Your task to perform on an android device: toggle location history Image 0: 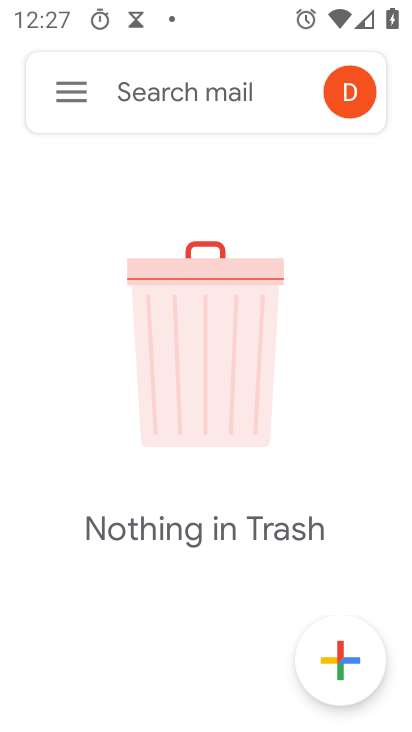
Step 0: press home button
Your task to perform on an android device: toggle location history Image 1: 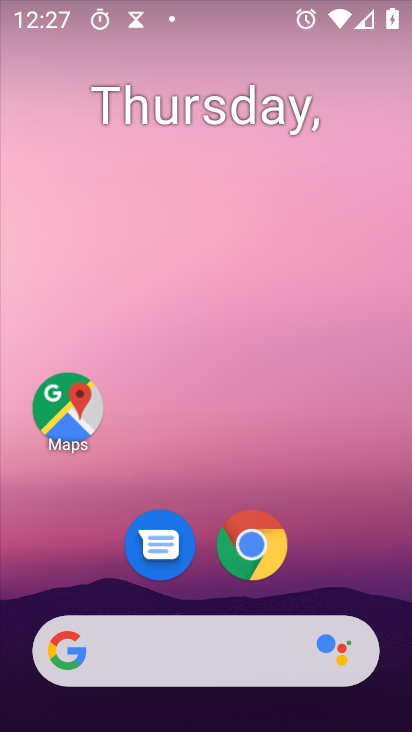
Step 1: drag from (174, 663) to (324, 132)
Your task to perform on an android device: toggle location history Image 2: 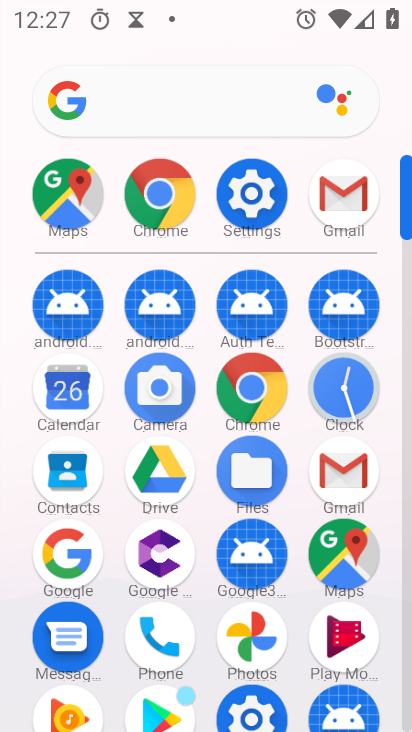
Step 2: click (251, 203)
Your task to perform on an android device: toggle location history Image 3: 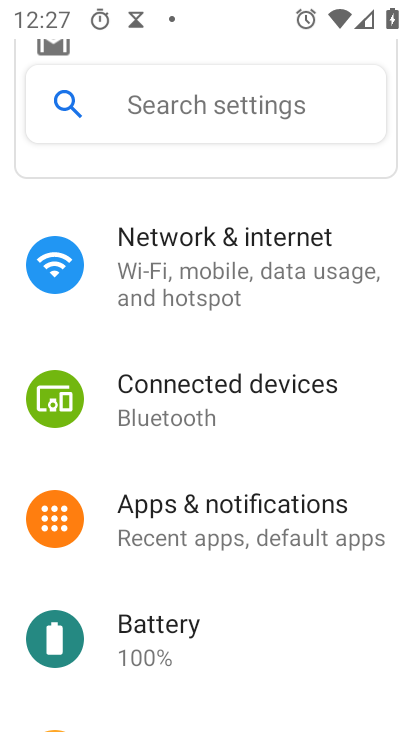
Step 3: drag from (225, 626) to (270, 95)
Your task to perform on an android device: toggle location history Image 4: 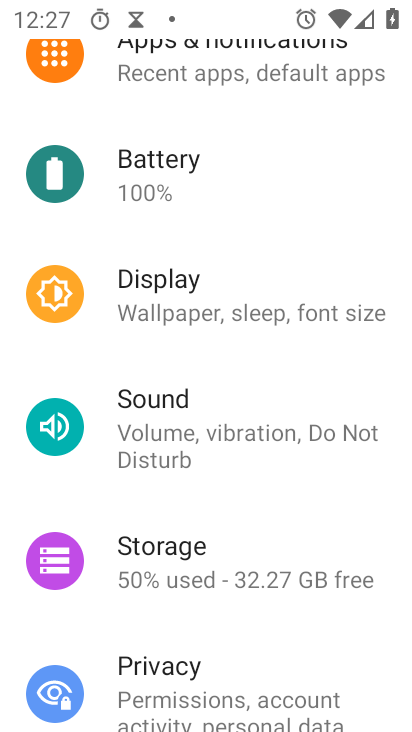
Step 4: drag from (209, 608) to (270, 175)
Your task to perform on an android device: toggle location history Image 5: 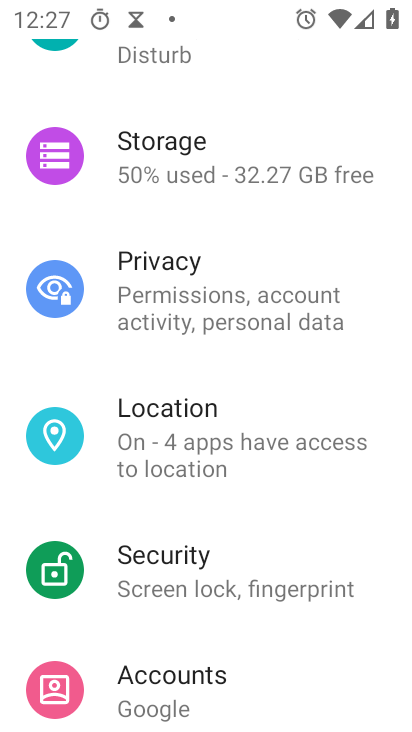
Step 5: click (196, 423)
Your task to perform on an android device: toggle location history Image 6: 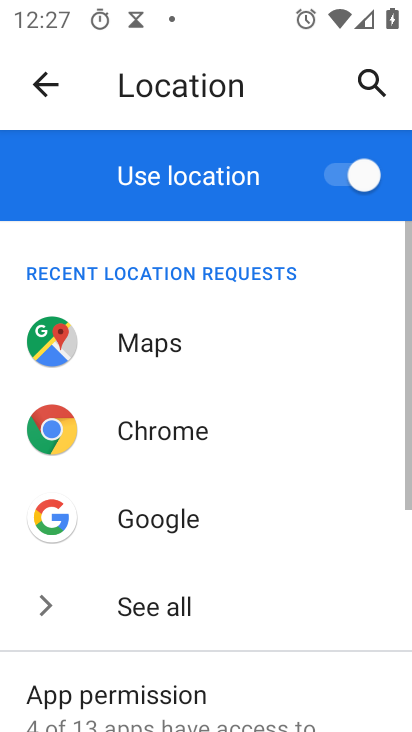
Step 6: drag from (187, 669) to (264, 58)
Your task to perform on an android device: toggle location history Image 7: 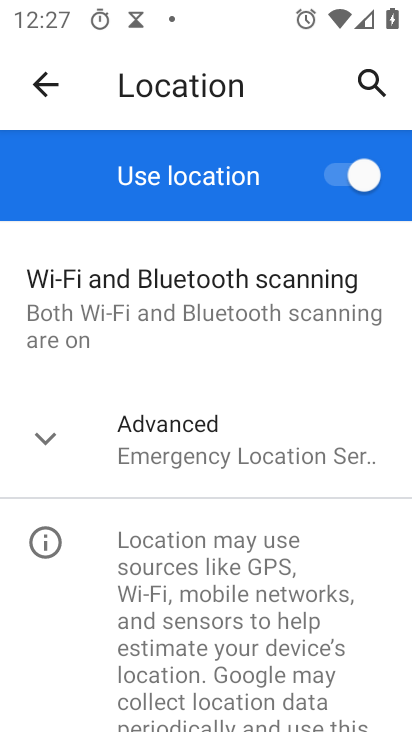
Step 7: click (182, 442)
Your task to perform on an android device: toggle location history Image 8: 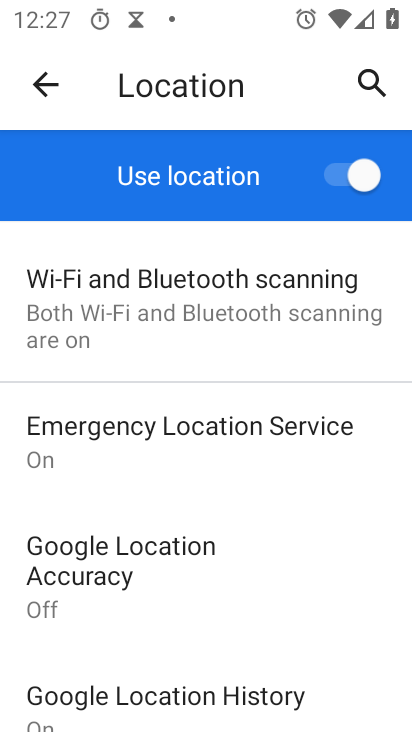
Step 8: click (112, 576)
Your task to perform on an android device: toggle location history Image 9: 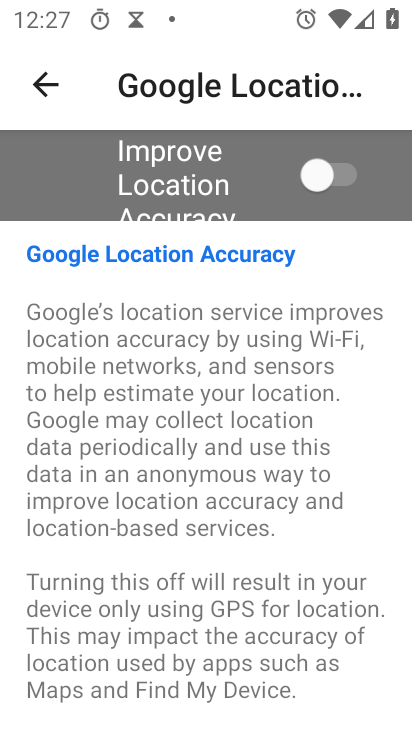
Step 9: click (44, 82)
Your task to perform on an android device: toggle location history Image 10: 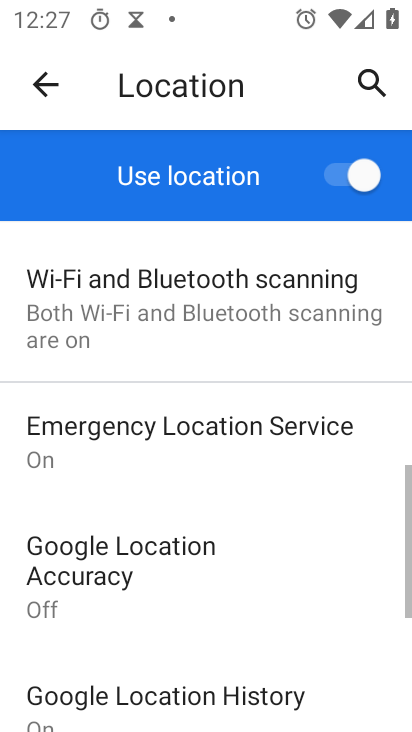
Step 10: drag from (220, 604) to (276, 266)
Your task to perform on an android device: toggle location history Image 11: 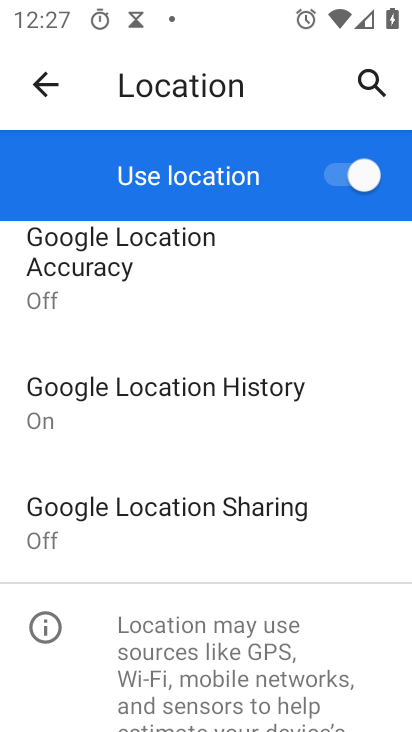
Step 11: click (148, 396)
Your task to perform on an android device: toggle location history Image 12: 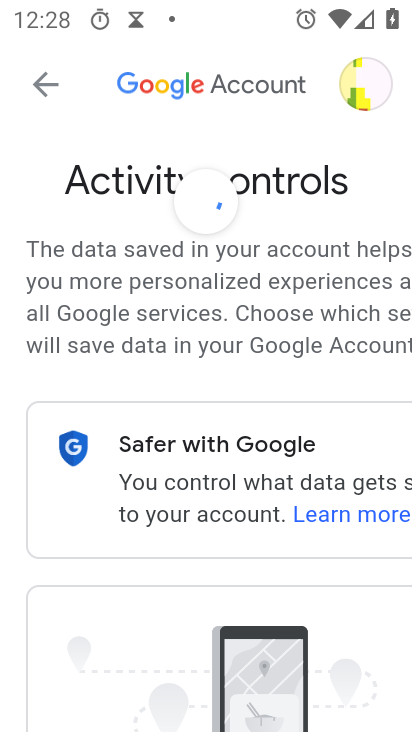
Step 12: drag from (196, 663) to (344, 68)
Your task to perform on an android device: toggle location history Image 13: 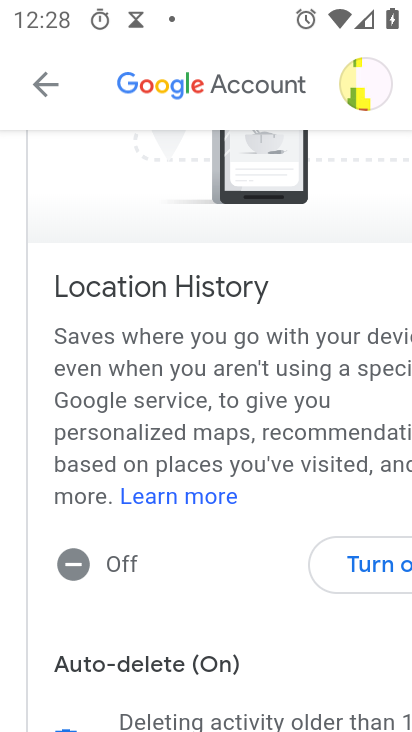
Step 13: click (393, 566)
Your task to perform on an android device: toggle location history Image 14: 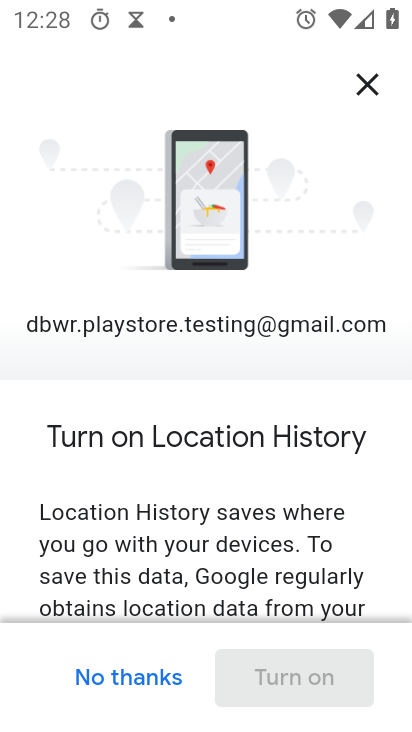
Step 14: drag from (276, 594) to (344, 108)
Your task to perform on an android device: toggle location history Image 15: 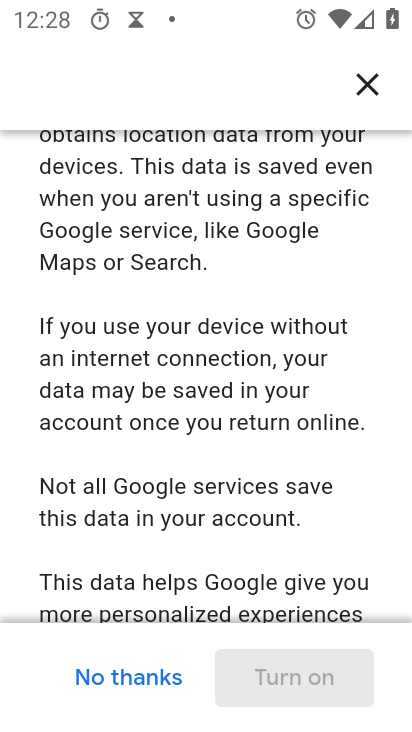
Step 15: drag from (248, 563) to (344, 82)
Your task to perform on an android device: toggle location history Image 16: 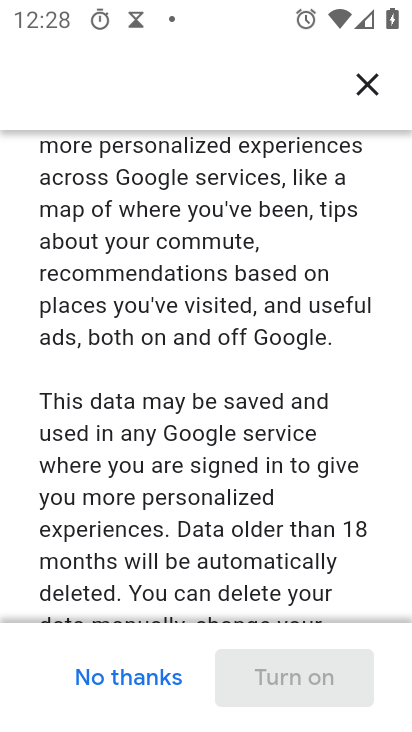
Step 16: drag from (291, 557) to (375, 53)
Your task to perform on an android device: toggle location history Image 17: 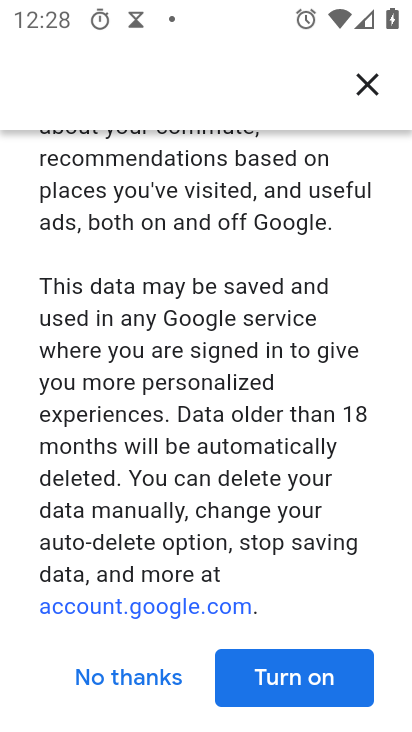
Step 17: click (297, 682)
Your task to perform on an android device: toggle location history Image 18: 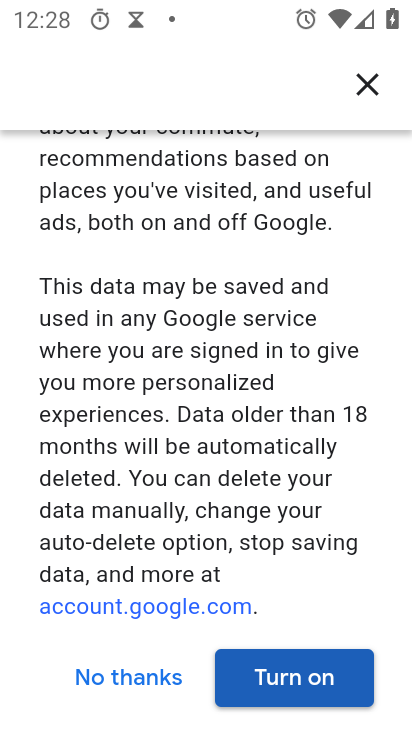
Step 18: click (302, 681)
Your task to perform on an android device: toggle location history Image 19: 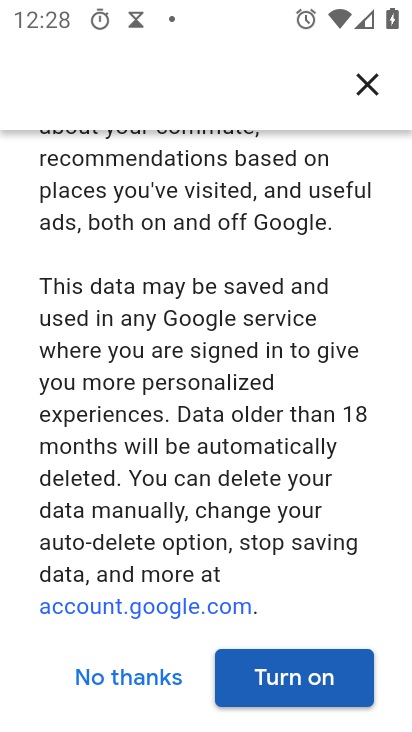
Step 19: click (303, 679)
Your task to perform on an android device: toggle location history Image 20: 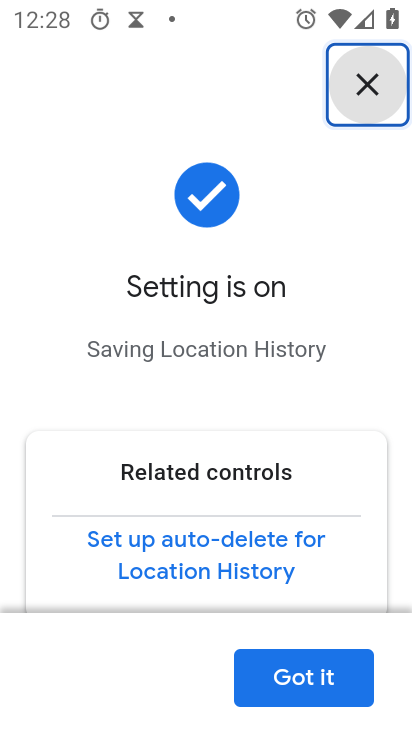
Step 20: click (361, 84)
Your task to perform on an android device: toggle location history Image 21: 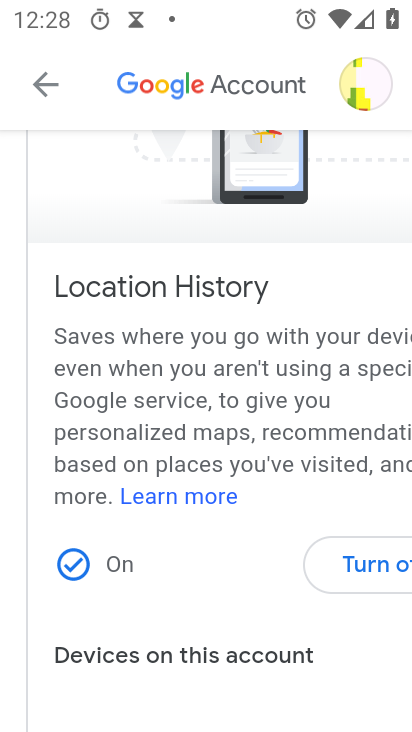
Step 21: task complete